Your task to perform on an android device: Search for vegetarian restaurants on Maps Image 0: 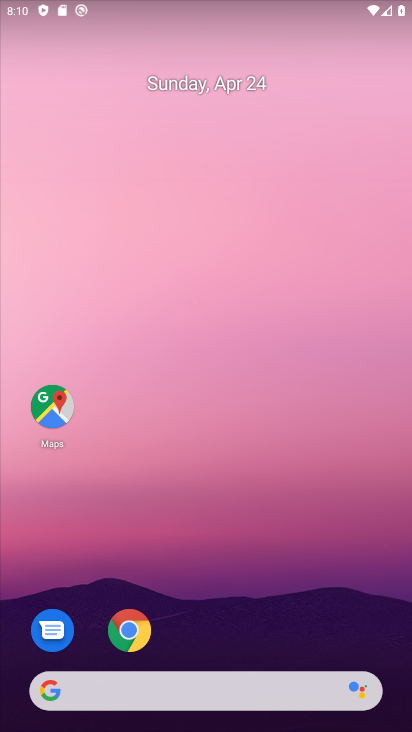
Step 0: click (57, 395)
Your task to perform on an android device: Search for vegetarian restaurants on Maps Image 1: 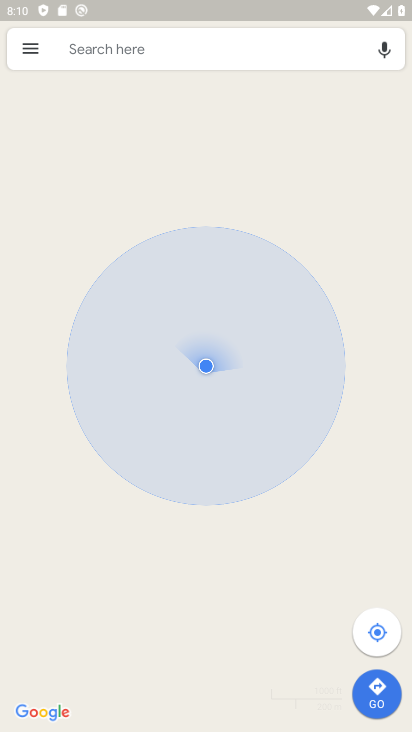
Step 1: click (129, 49)
Your task to perform on an android device: Search for vegetarian restaurants on Maps Image 2: 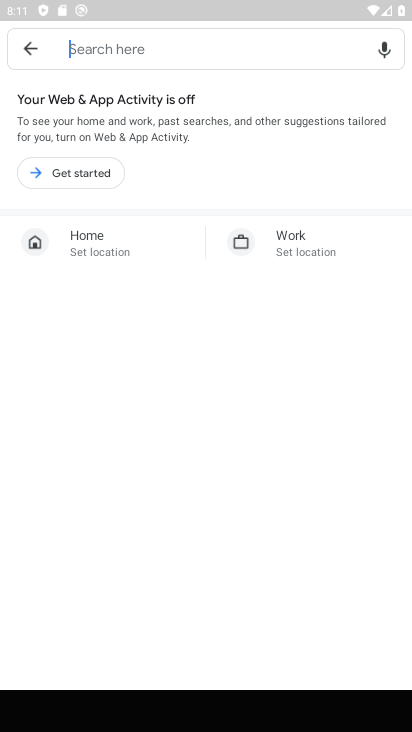
Step 2: click (129, 49)
Your task to perform on an android device: Search for vegetarian restaurants on Maps Image 3: 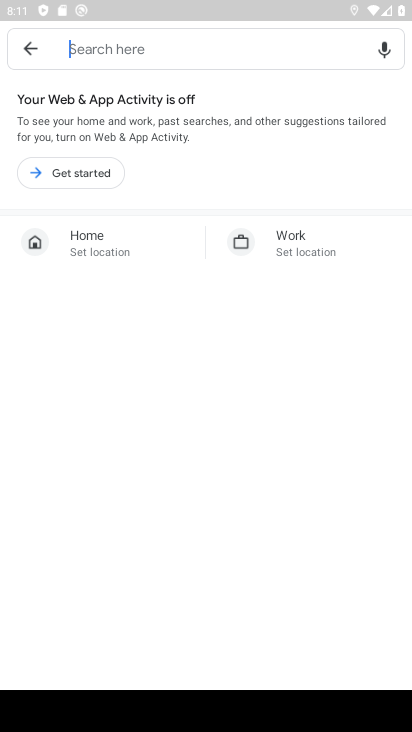
Step 3: type "vegetarian restaurants "
Your task to perform on an android device: Search for vegetarian restaurants on Maps Image 4: 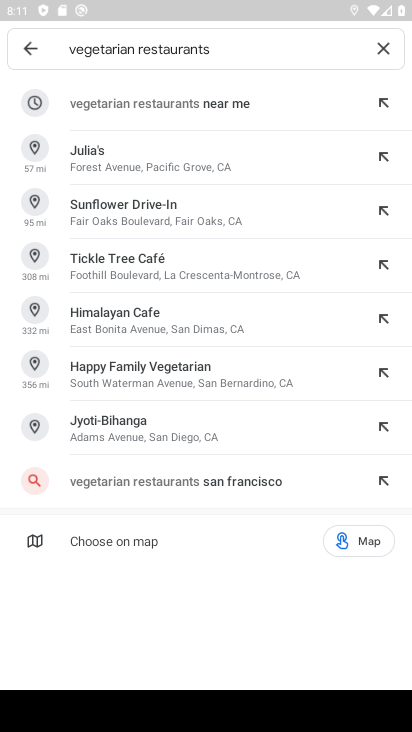
Step 4: click (141, 100)
Your task to perform on an android device: Search for vegetarian restaurants on Maps Image 5: 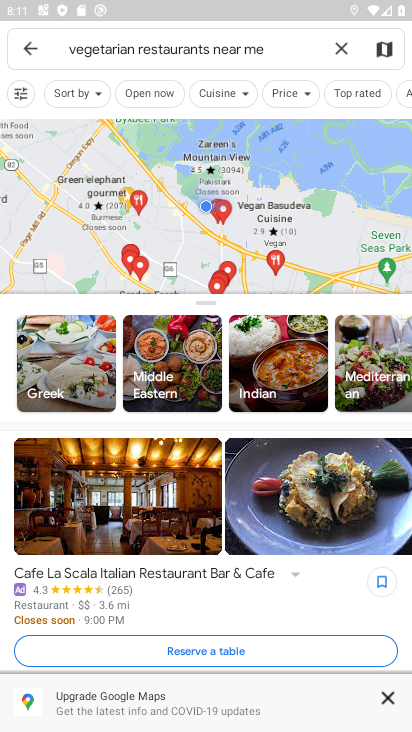
Step 5: task complete